Your task to perform on an android device: turn on improve location accuracy Image 0: 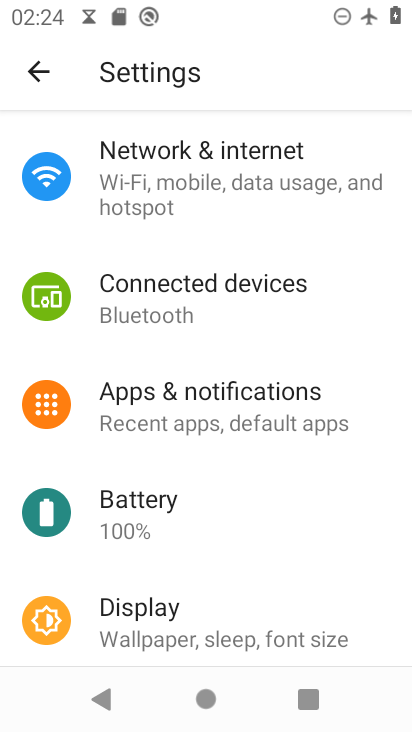
Step 0: press home button
Your task to perform on an android device: turn on improve location accuracy Image 1: 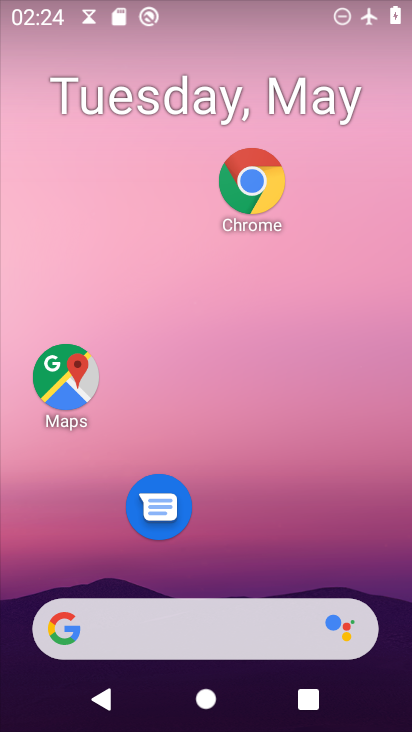
Step 1: drag from (324, 573) to (350, 256)
Your task to perform on an android device: turn on improve location accuracy Image 2: 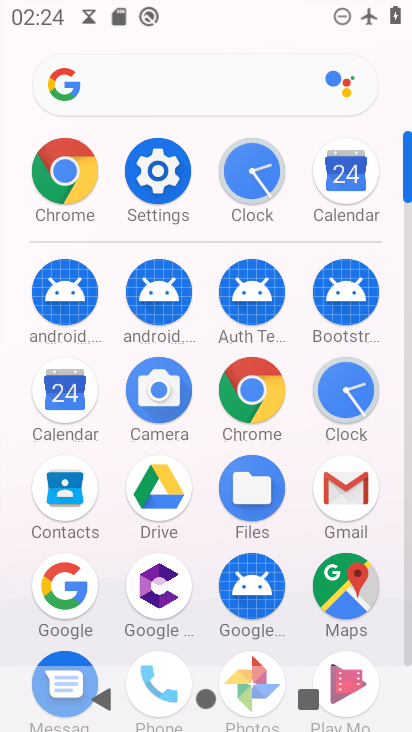
Step 2: drag from (304, 575) to (329, 337)
Your task to perform on an android device: turn on improve location accuracy Image 3: 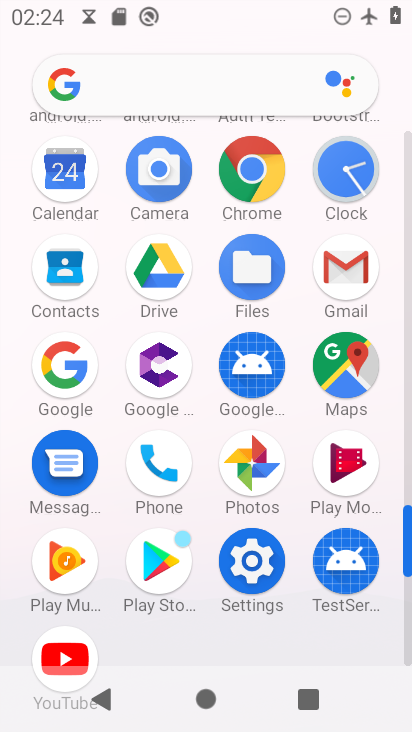
Step 3: click (240, 572)
Your task to perform on an android device: turn on improve location accuracy Image 4: 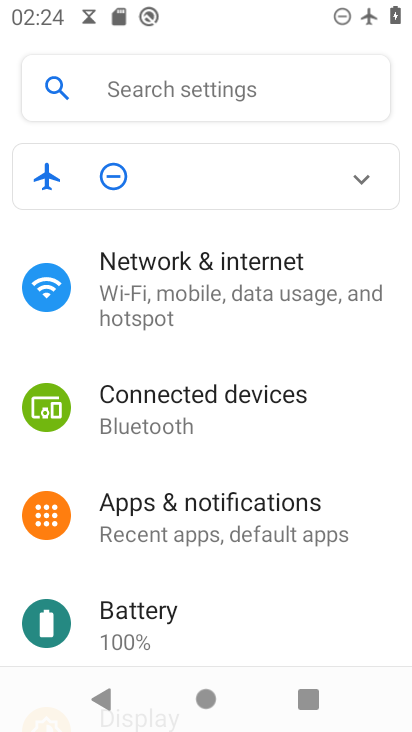
Step 4: drag from (237, 586) to (332, 199)
Your task to perform on an android device: turn on improve location accuracy Image 5: 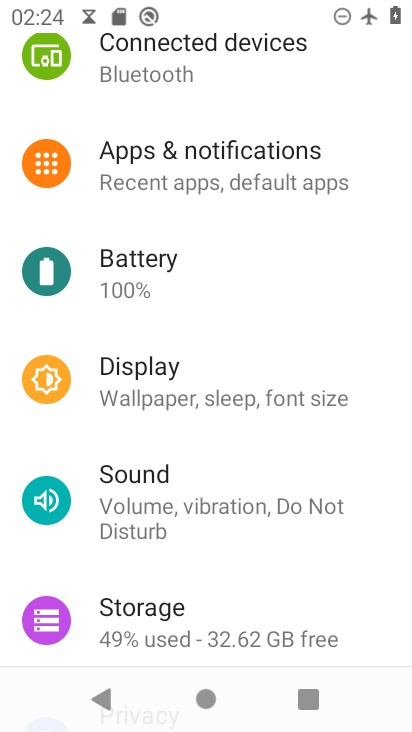
Step 5: drag from (211, 565) to (286, 144)
Your task to perform on an android device: turn on improve location accuracy Image 6: 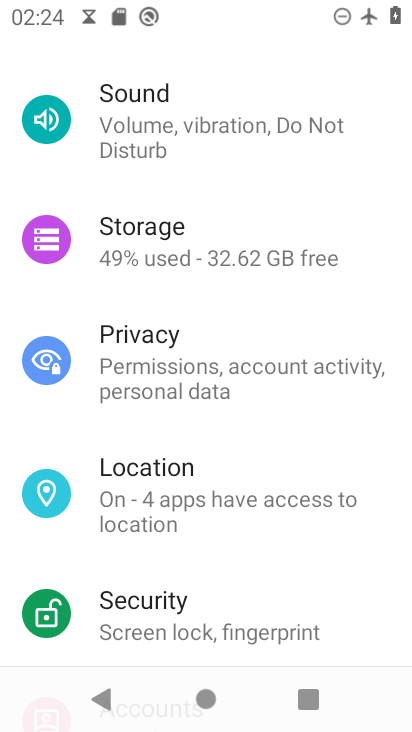
Step 6: click (199, 485)
Your task to perform on an android device: turn on improve location accuracy Image 7: 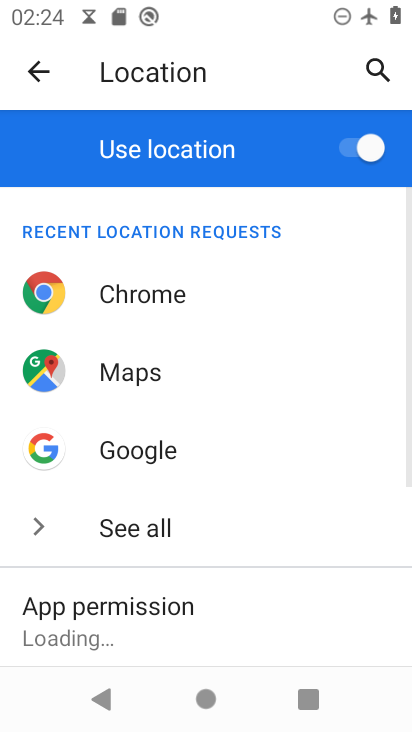
Step 7: drag from (245, 611) to (276, 308)
Your task to perform on an android device: turn on improve location accuracy Image 8: 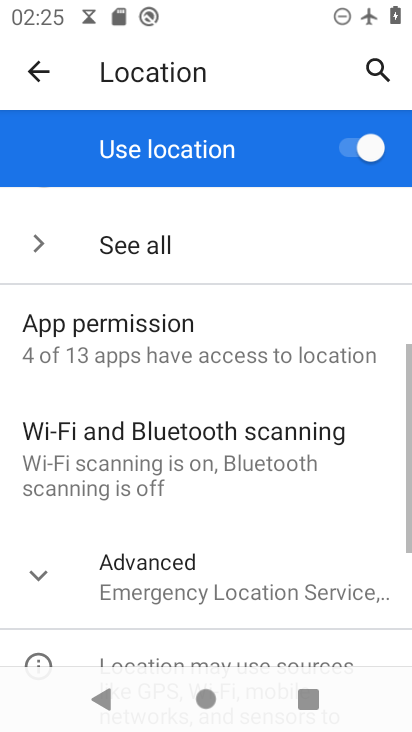
Step 8: click (225, 586)
Your task to perform on an android device: turn on improve location accuracy Image 9: 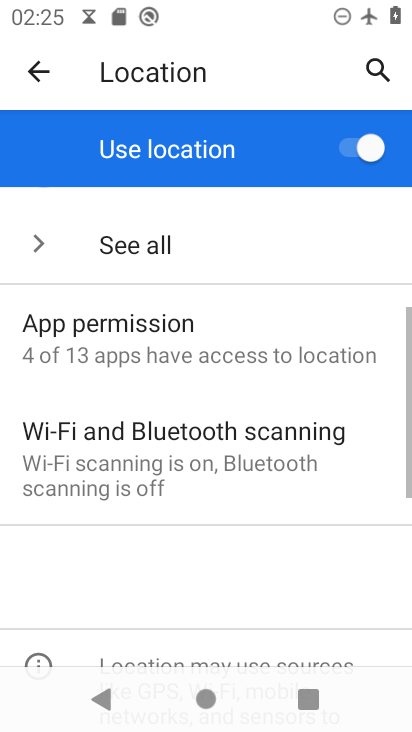
Step 9: drag from (250, 549) to (312, 145)
Your task to perform on an android device: turn on improve location accuracy Image 10: 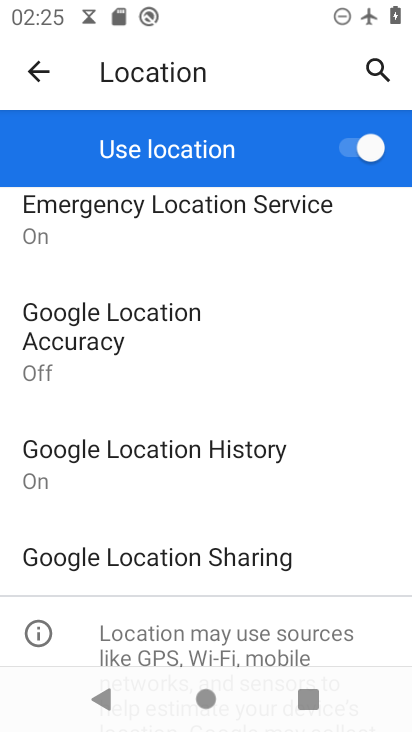
Step 10: drag from (194, 319) to (220, 417)
Your task to perform on an android device: turn on improve location accuracy Image 11: 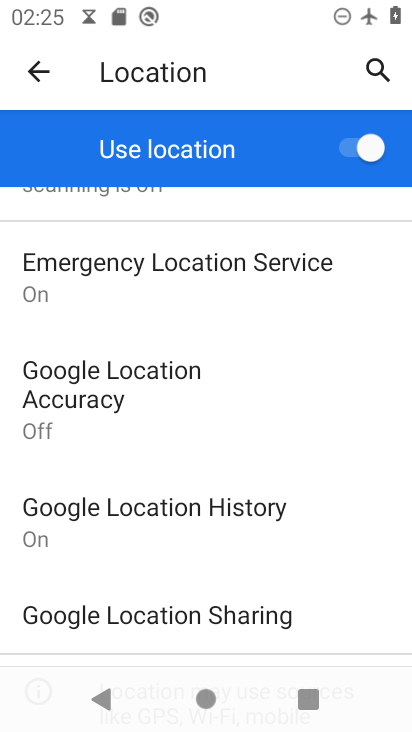
Step 11: click (130, 368)
Your task to perform on an android device: turn on improve location accuracy Image 12: 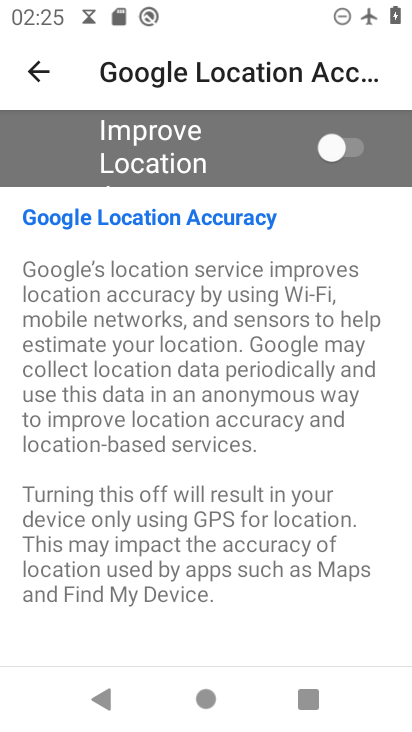
Step 12: click (350, 153)
Your task to perform on an android device: turn on improve location accuracy Image 13: 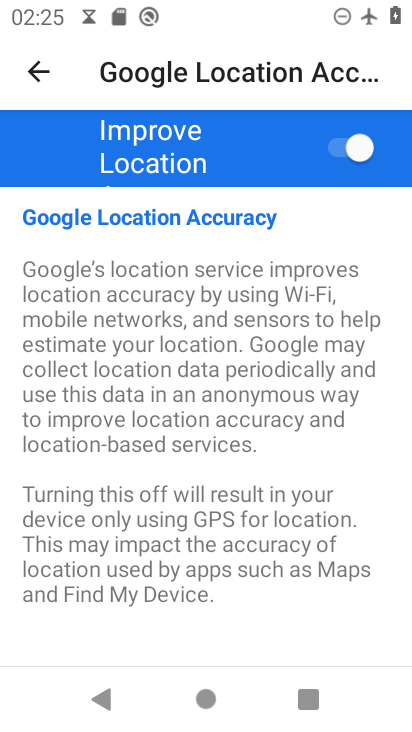
Step 13: task complete